Your task to perform on an android device: Go to location settings Image 0: 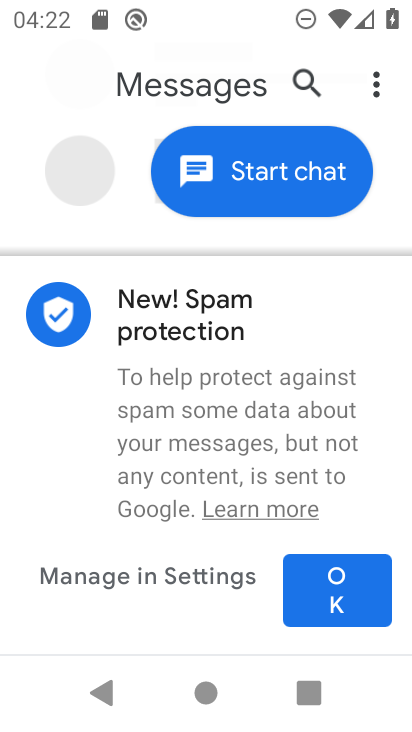
Step 0: press home button
Your task to perform on an android device: Go to location settings Image 1: 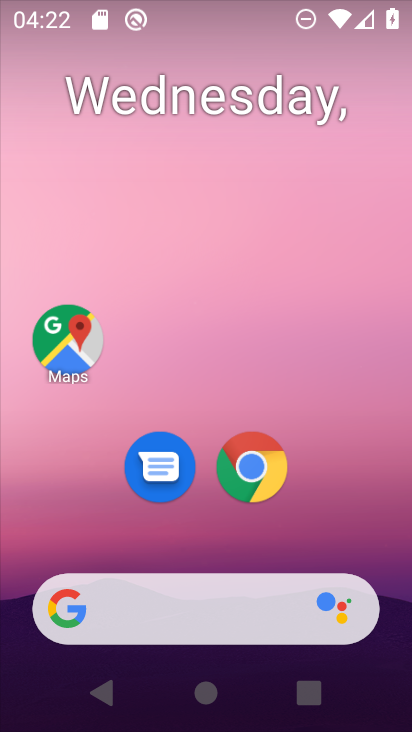
Step 1: drag from (388, 560) to (324, 85)
Your task to perform on an android device: Go to location settings Image 2: 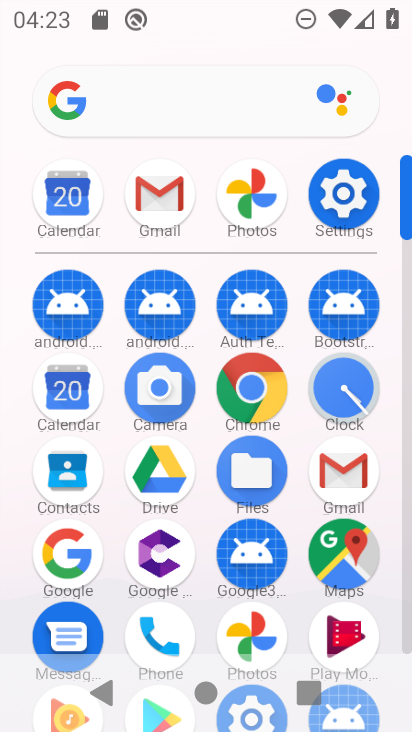
Step 2: click (406, 637)
Your task to perform on an android device: Go to location settings Image 3: 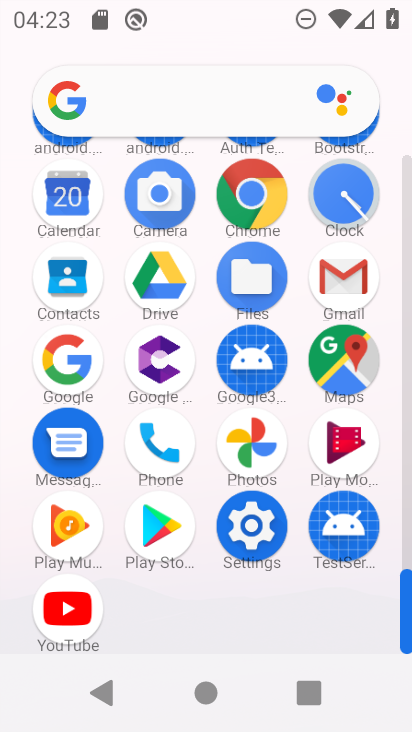
Step 3: click (251, 523)
Your task to perform on an android device: Go to location settings Image 4: 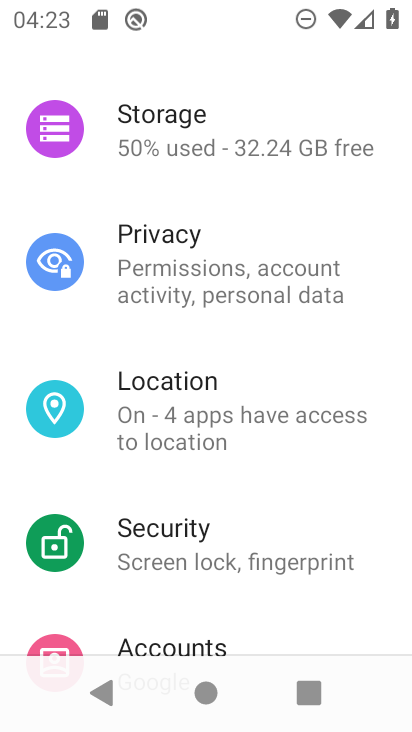
Step 4: click (168, 406)
Your task to perform on an android device: Go to location settings Image 5: 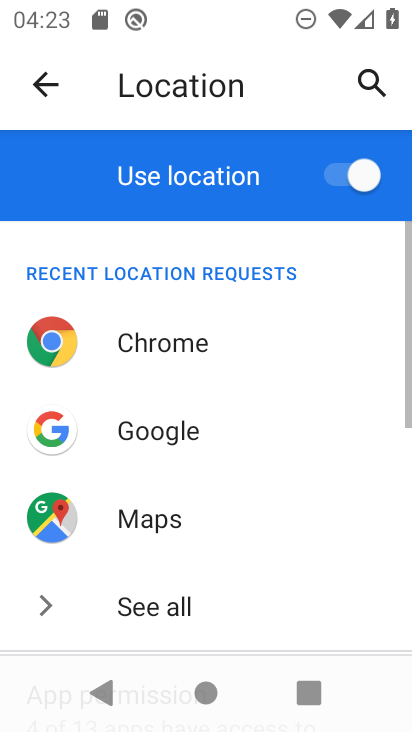
Step 5: task complete